Your task to perform on an android device: clear all cookies in the chrome app Image 0: 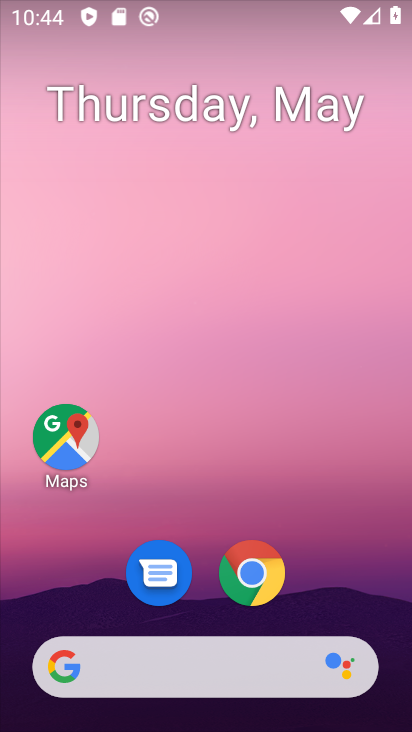
Step 0: click (263, 589)
Your task to perform on an android device: clear all cookies in the chrome app Image 1: 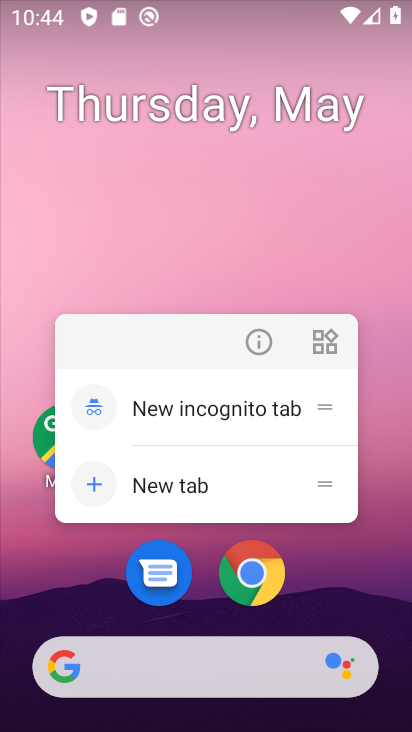
Step 1: click (254, 580)
Your task to perform on an android device: clear all cookies in the chrome app Image 2: 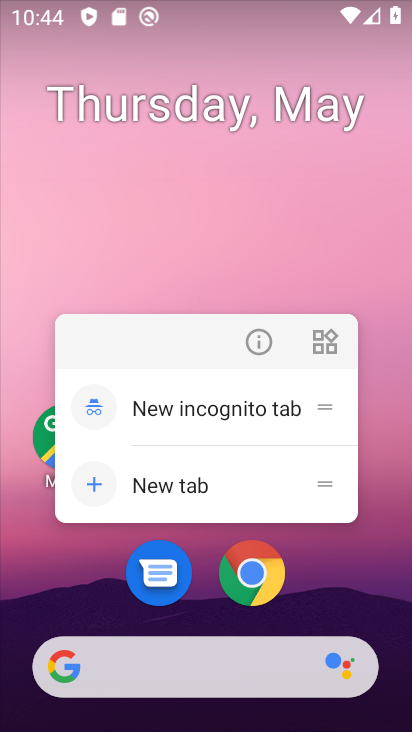
Step 2: click (253, 565)
Your task to perform on an android device: clear all cookies in the chrome app Image 3: 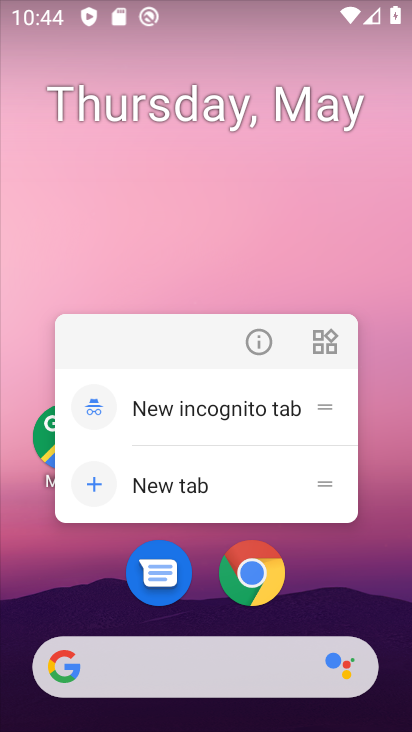
Step 3: click (244, 570)
Your task to perform on an android device: clear all cookies in the chrome app Image 4: 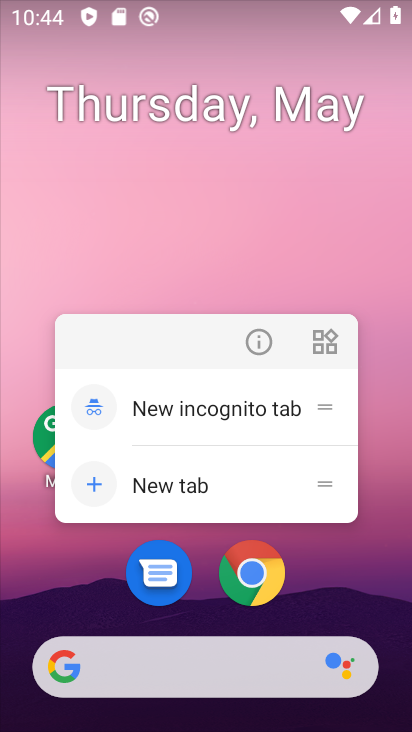
Step 4: click (248, 574)
Your task to perform on an android device: clear all cookies in the chrome app Image 5: 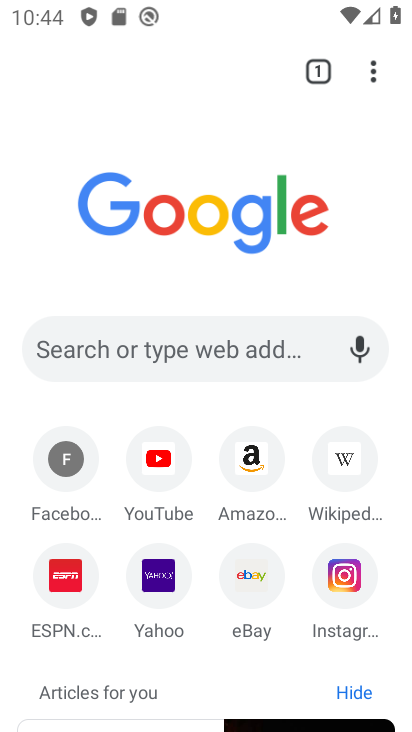
Step 5: drag from (395, 76) to (200, 615)
Your task to perform on an android device: clear all cookies in the chrome app Image 6: 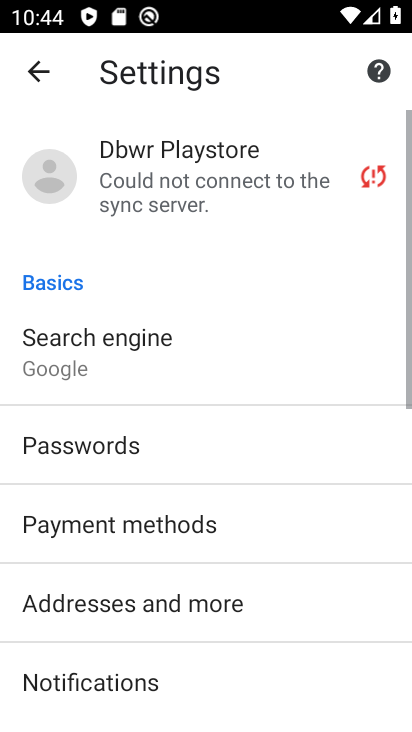
Step 6: drag from (132, 669) to (294, 240)
Your task to perform on an android device: clear all cookies in the chrome app Image 7: 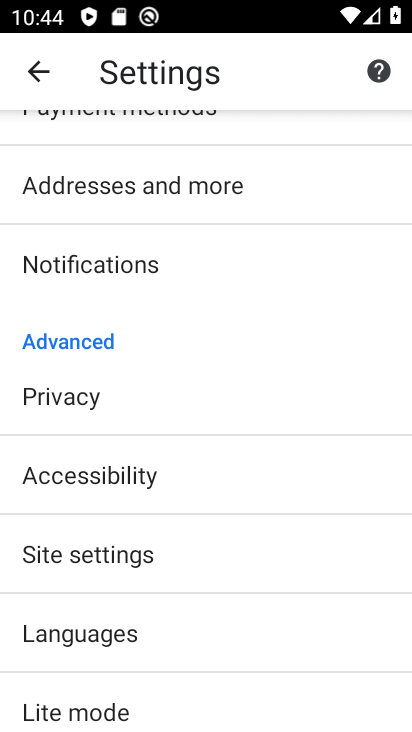
Step 7: click (159, 422)
Your task to perform on an android device: clear all cookies in the chrome app Image 8: 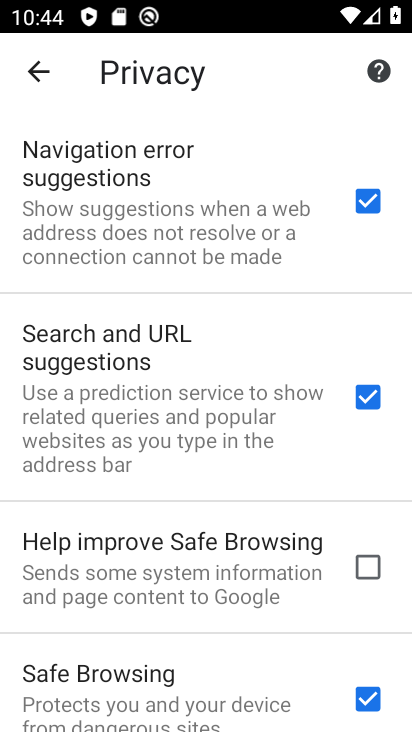
Step 8: drag from (113, 642) to (297, 121)
Your task to perform on an android device: clear all cookies in the chrome app Image 9: 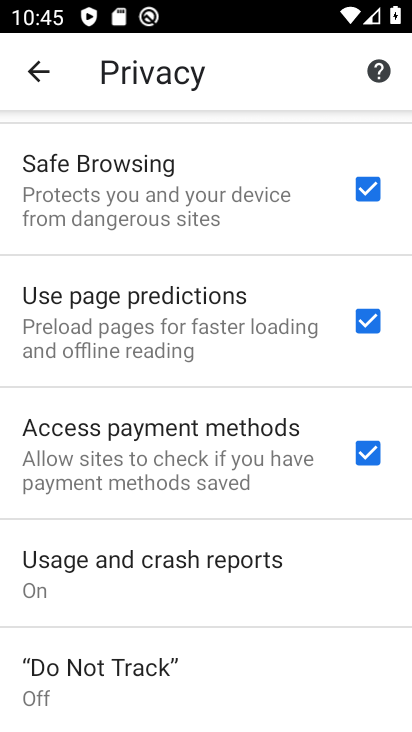
Step 9: drag from (136, 657) to (290, 188)
Your task to perform on an android device: clear all cookies in the chrome app Image 10: 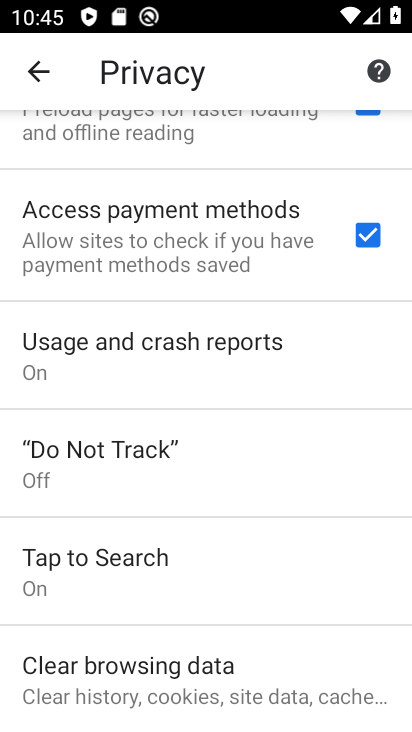
Step 10: click (157, 671)
Your task to perform on an android device: clear all cookies in the chrome app Image 11: 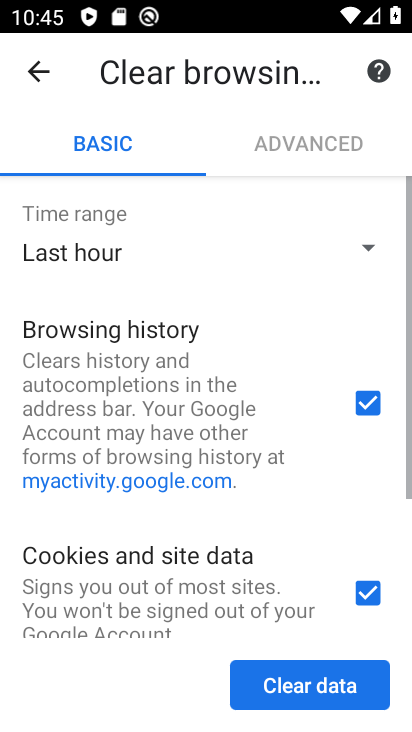
Step 11: click (367, 401)
Your task to perform on an android device: clear all cookies in the chrome app Image 12: 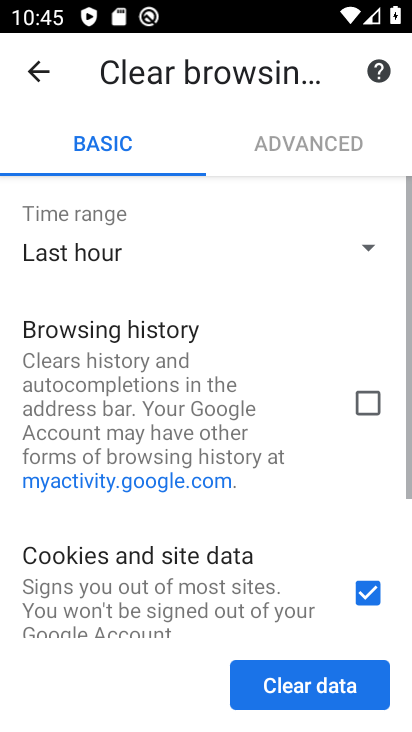
Step 12: drag from (132, 624) to (231, 229)
Your task to perform on an android device: clear all cookies in the chrome app Image 13: 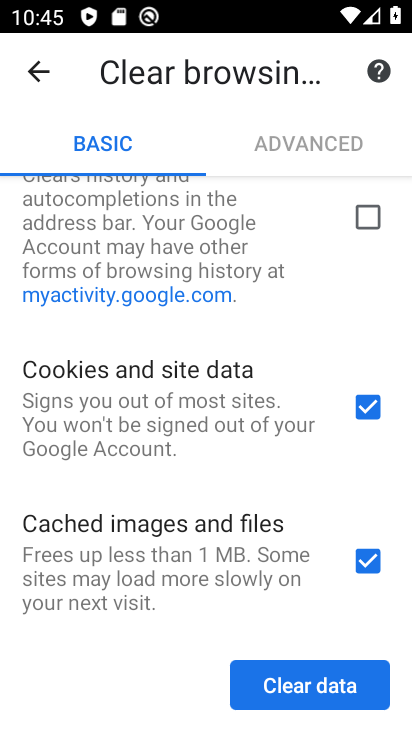
Step 13: click (361, 565)
Your task to perform on an android device: clear all cookies in the chrome app Image 14: 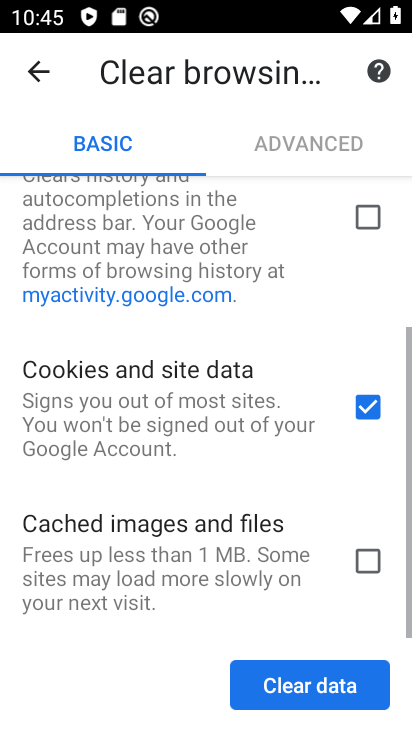
Step 14: click (308, 680)
Your task to perform on an android device: clear all cookies in the chrome app Image 15: 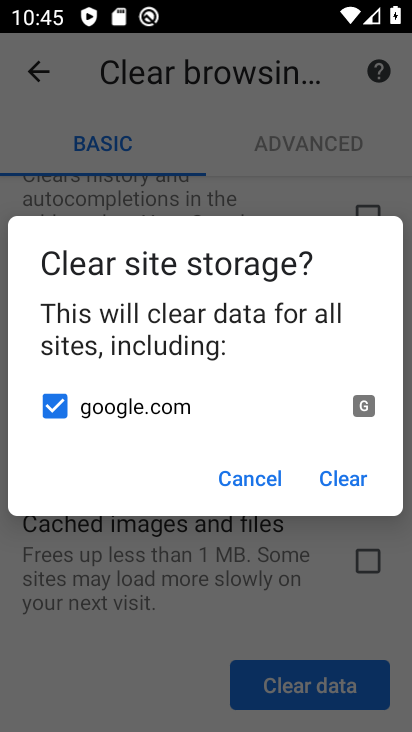
Step 15: click (349, 496)
Your task to perform on an android device: clear all cookies in the chrome app Image 16: 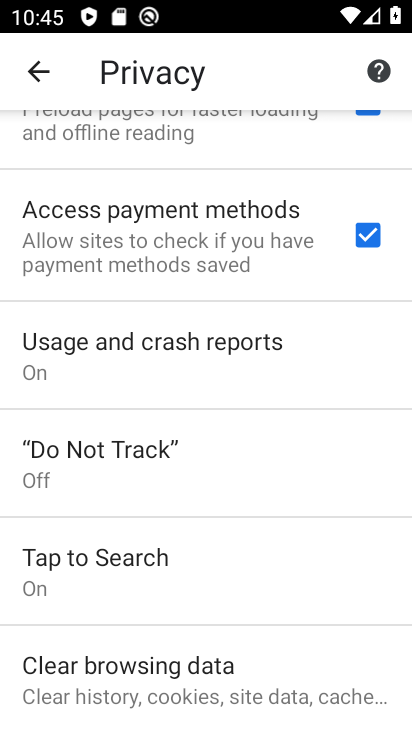
Step 16: task complete